Your task to perform on an android device: search for starred emails in the gmail app Image 0: 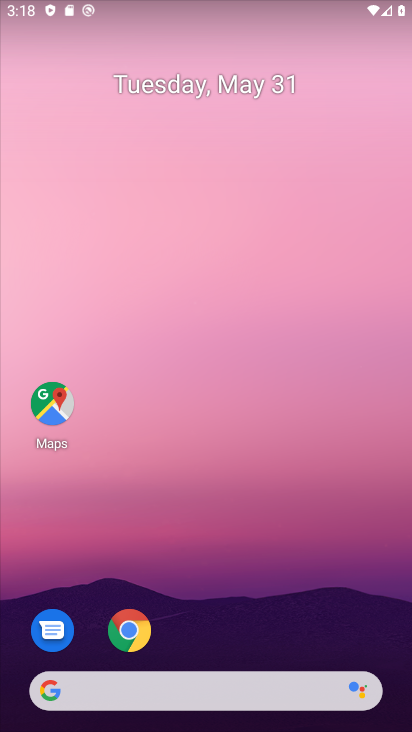
Step 0: drag from (181, 708) to (326, 62)
Your task to perform on an android device: search for starred emails in the gmail app Image 1: 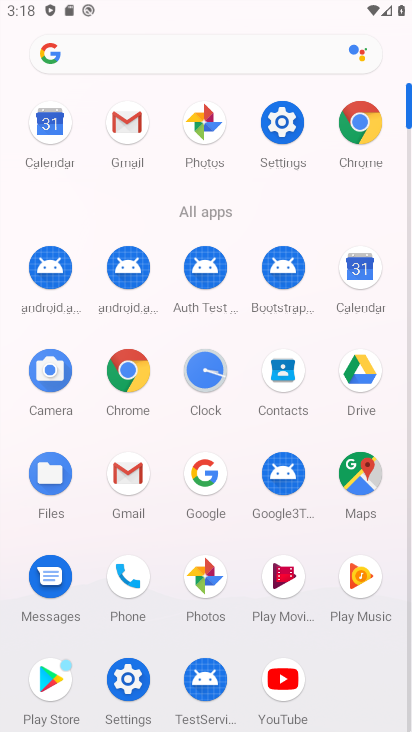
Step 1: click (129, 482)
Your task to perform on an android device: search for starred emails in the gmail app Image 2: 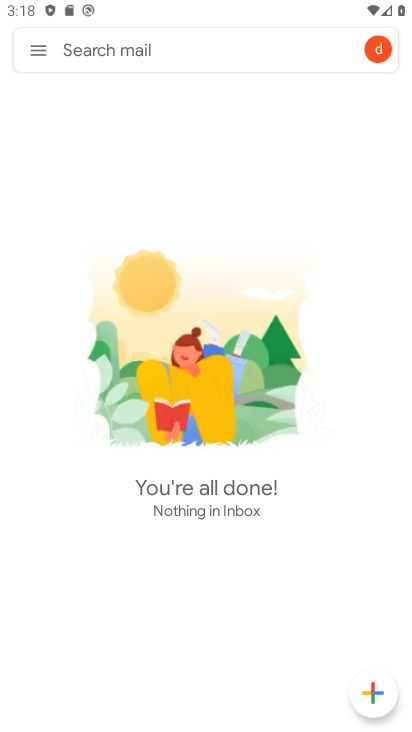
Step 2: click (33, 47)
Your task to perform on an android device: search for starred emails in the gmail app Image 3: 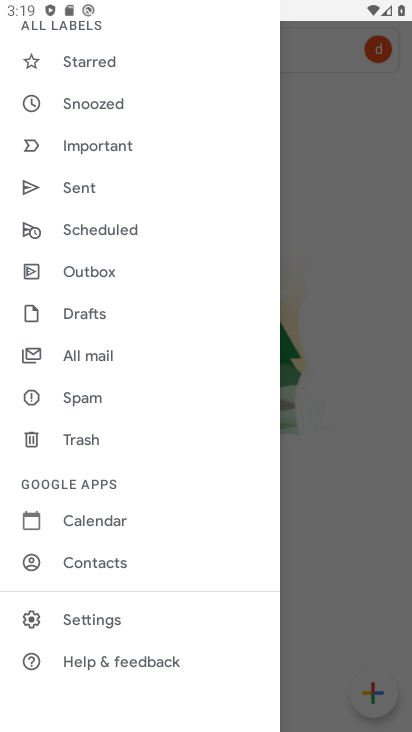
Step 3: click (66, 71)
Your task to perform on an android device: search for starred emails in the gmail app Image 4: 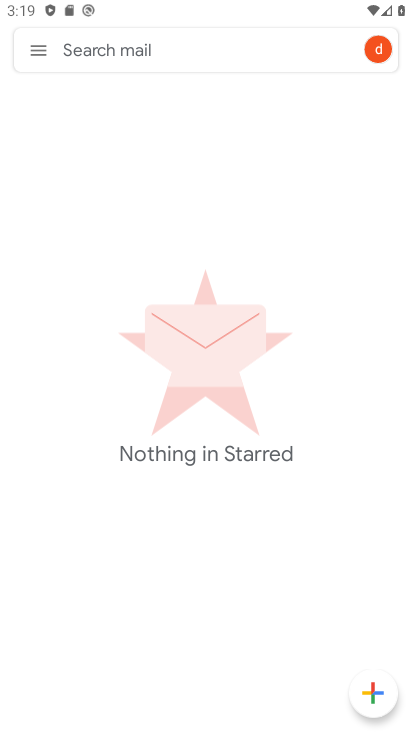
Step 4: task complete